Your task to perform on an android device: uninstall "AliExpress" Image 0: 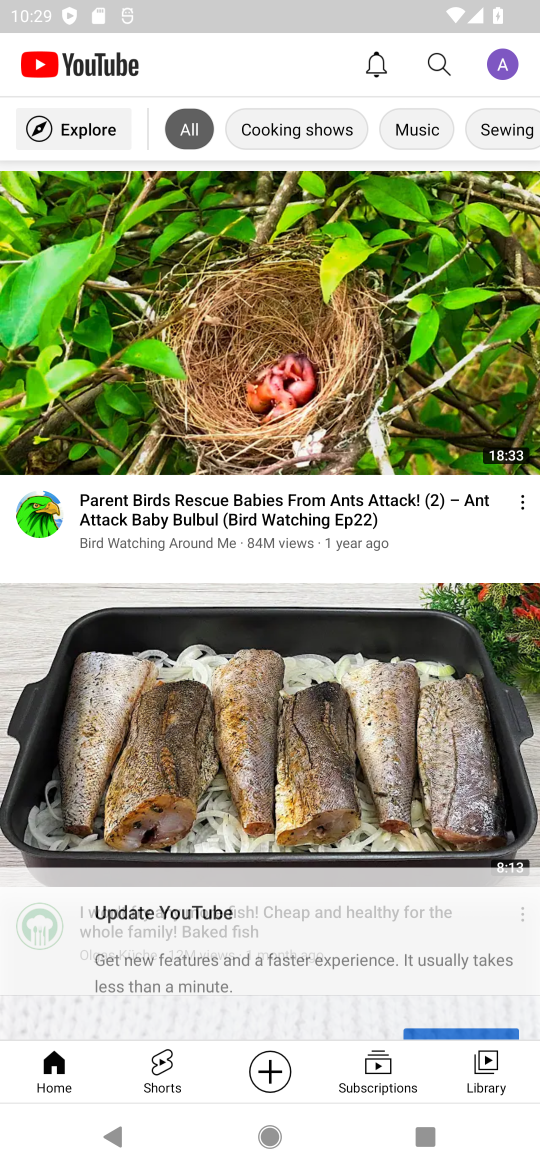
Step 0: press home button
Your task to perform on an android device: uninstall "AliExpress" Image 1: 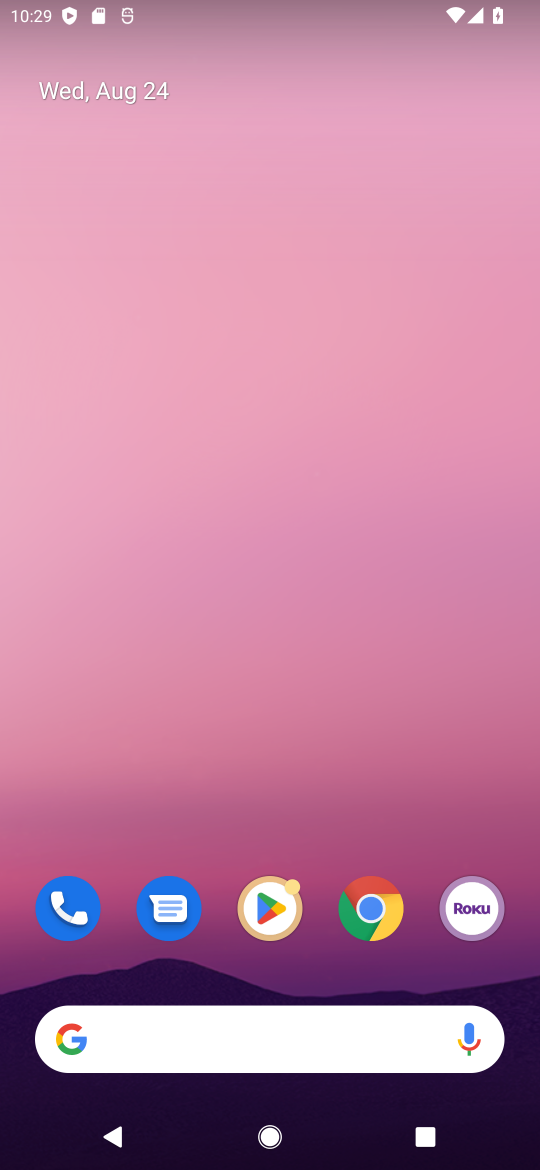
Step 1: click (299, 902)
Your task to perform on an android device: uninstall "AliExpress" Image 2: 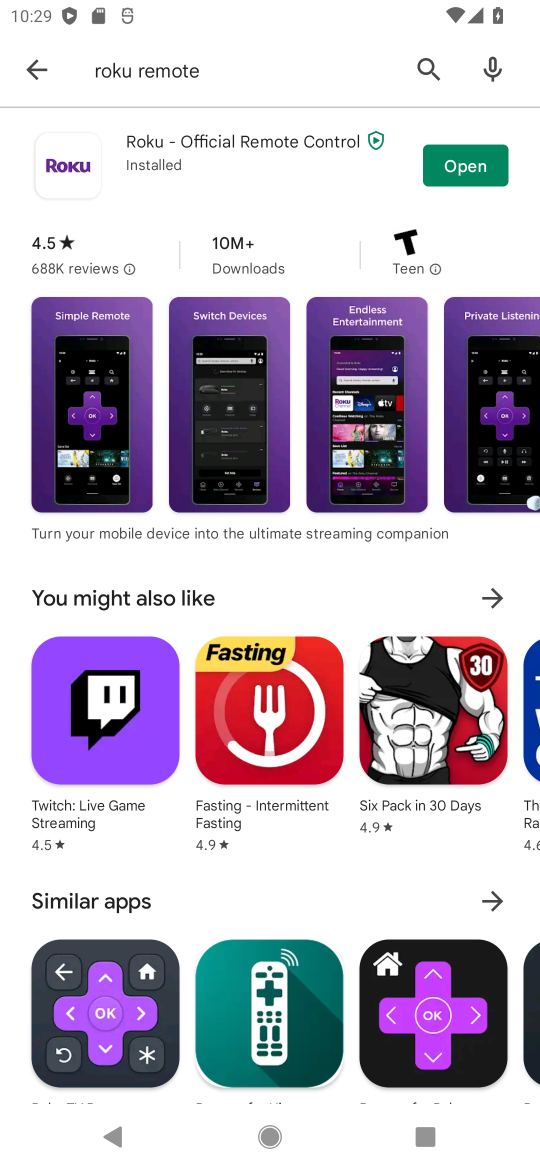
Step 2: click (19, 59)
Your task to perform on an android device: uninstall "AliExpress" Image 3: 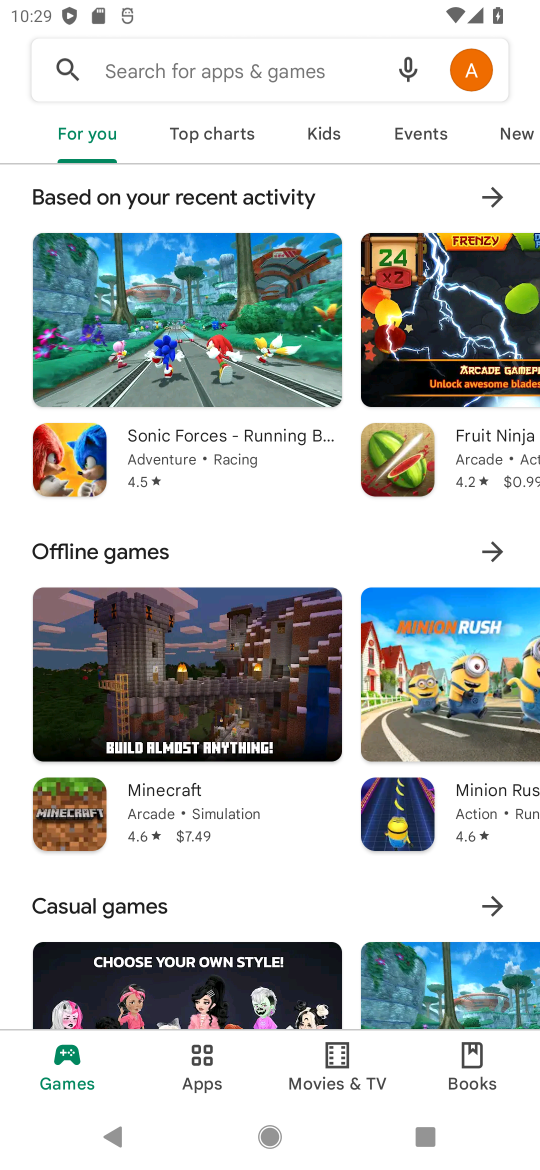
Step 3: click (263, 55)
Your task to perform on an android device: uninstall "AliExpress" Image 4: 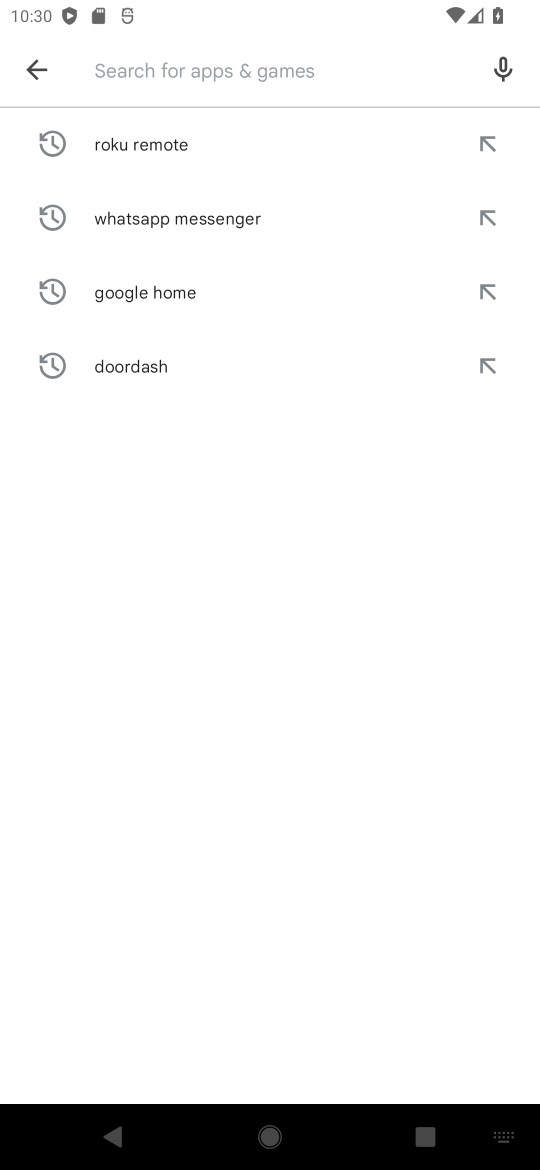
Step 4: type "AliExpress"
Your task to perform on an android device: uninstall "AliExpress" Image 5: 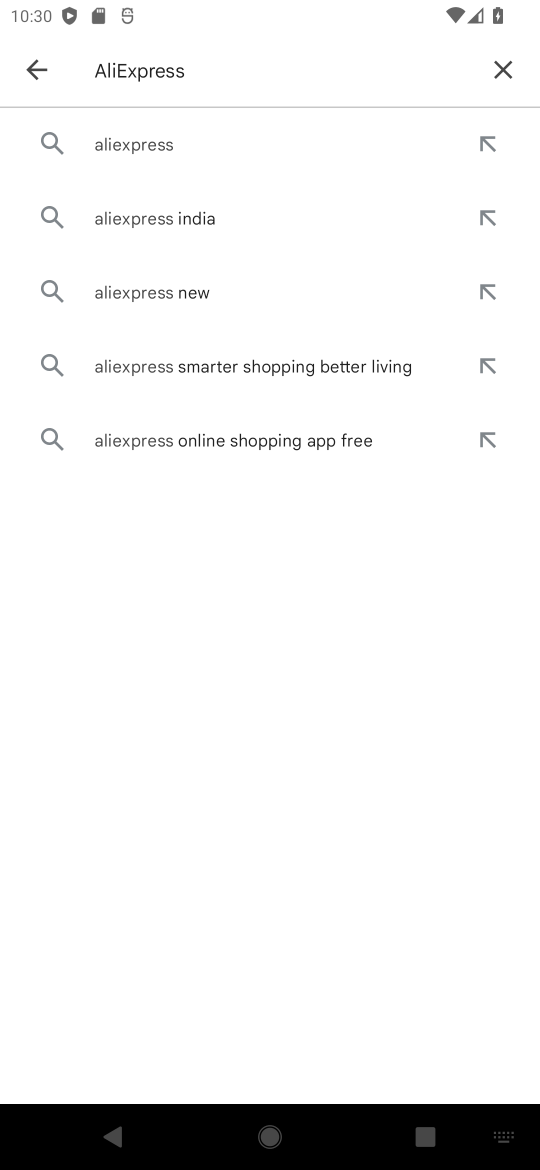
Step 5: click (305, 142)
Your task to perform on an android device: uninstall "AliExpress" Image 6: 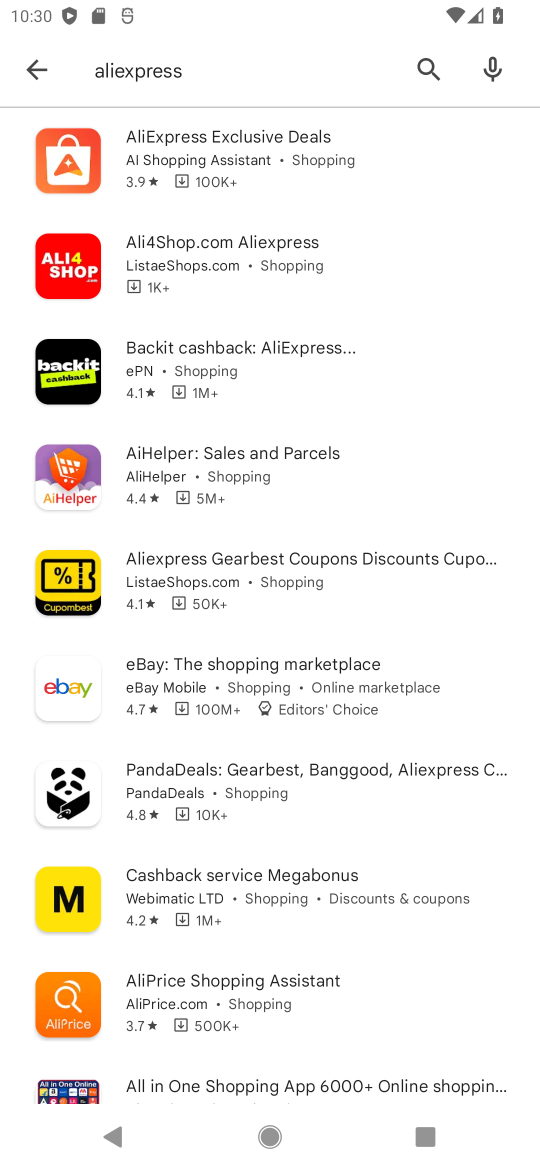
Step 6: click (305, 142)
Your task to perform on an android device: uninstall "AliExpress" Image 7: 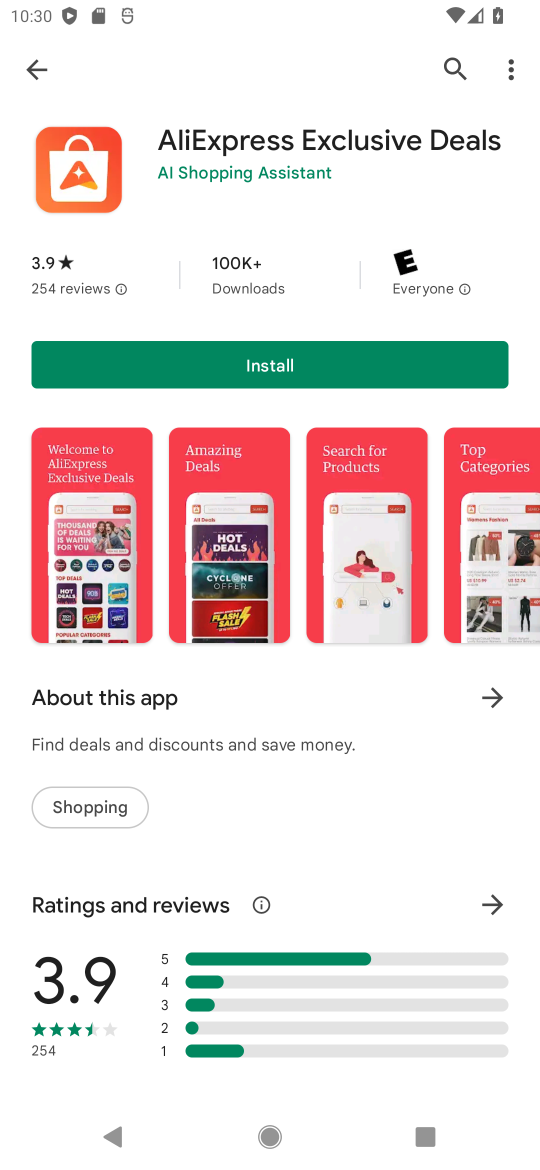
Step 7: task complete